Your task to perform on an android device: Open Google Chrome and open the bookmarks view Image 0: 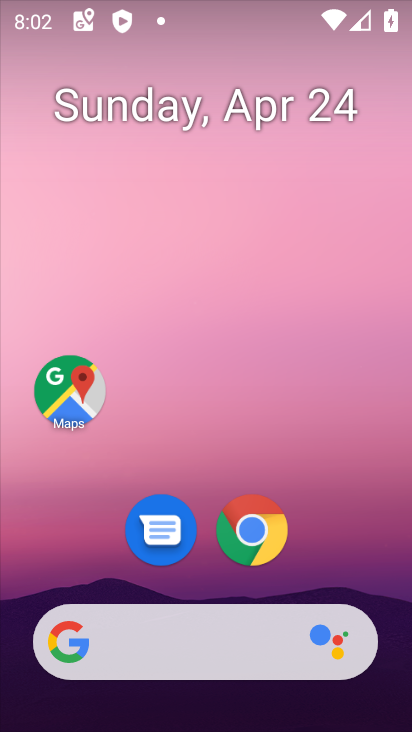
Step 0: click (252, 527)
Your task to perform on an android device: Open Google Chrome and open the bookmarks view Image 1: 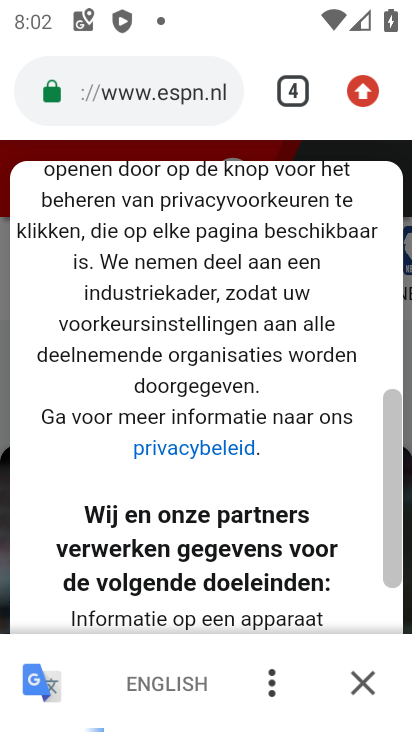
Step 1: click (362, 99)
Your task to perform on an android device: Open Google Chrome and open the bookmarks view Image 2: 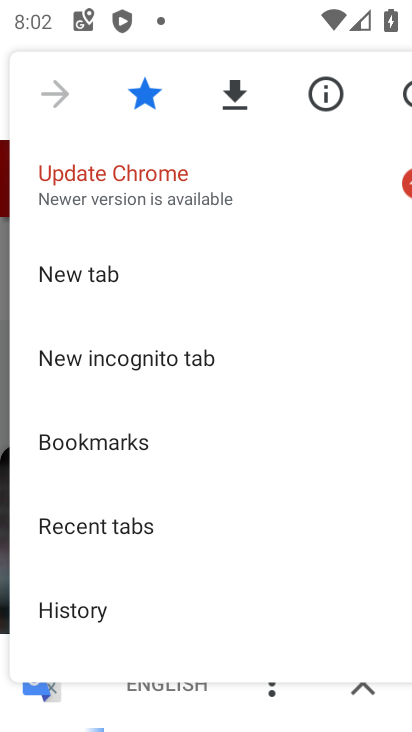
Step 2: click (176, 453)
Your task to perform on an android device: Open Google Chrome and open the bookmarks view Image 3: 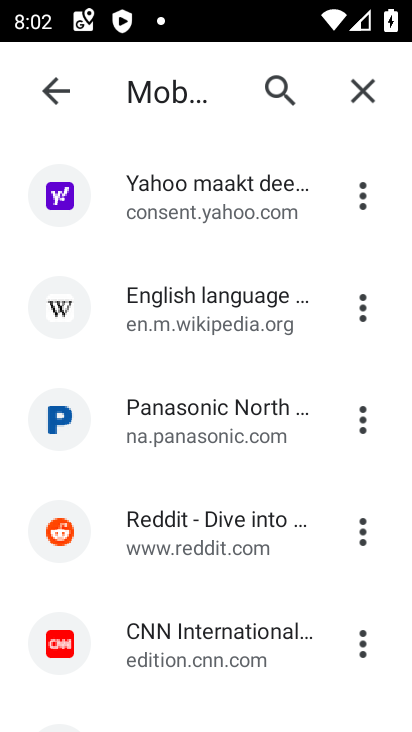
Step 3: task complete